Your task to perform on an android device: Go to location settings Image 0: 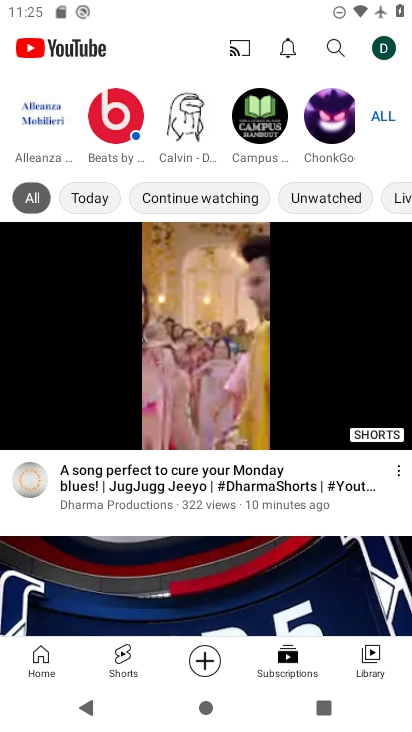
Step 0: press home button
Your task to perform on an android device: Go to location settings Image 1: 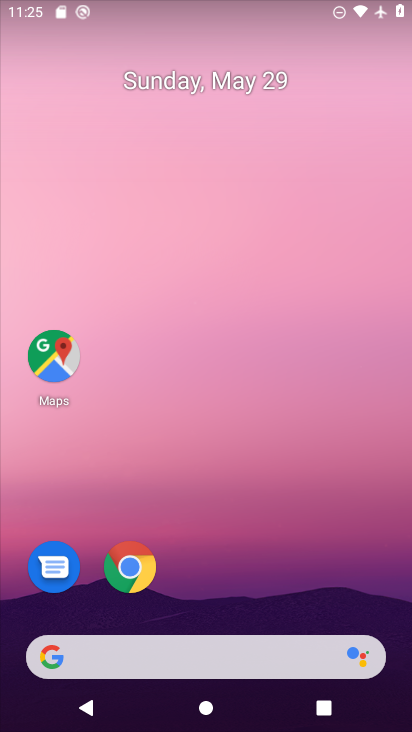
Step 1: drag from (391, 628) to (334, 144)
Your task to perform on an android device: Go to location settings Image 2: 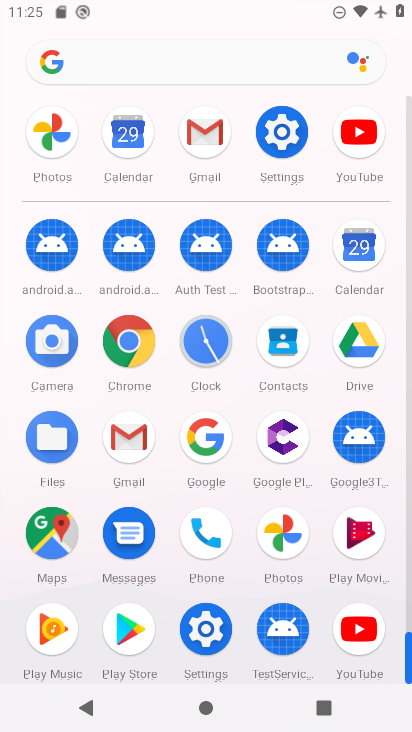
Step 2: click (206, 629)
Your task to perform on an android device: Go to location settings Image 3: 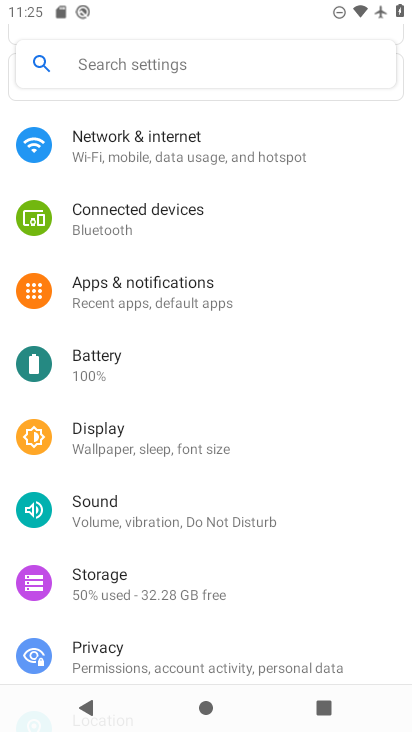
Step 3: drag from (294, 655) to (289, 148)
Your task to perform on an android device: Go to location settings Image 4: 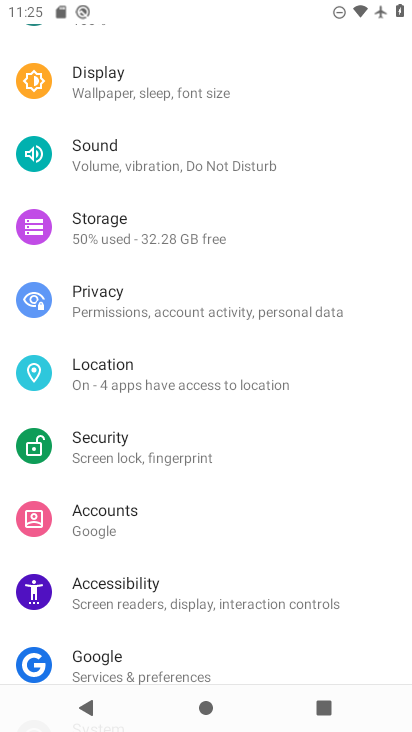
Step 4: click (119, 374)
Your task to perform on an android device: Go to location settings Image 5: 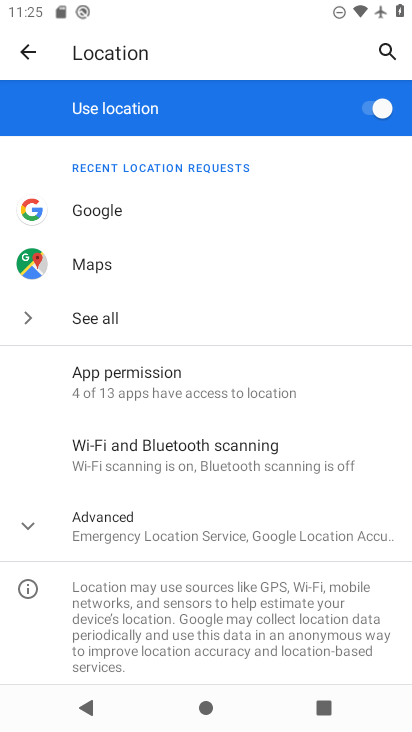
Step 5: click (28, 525)
Your task to perform on an android device: Go to location settings Image 6: 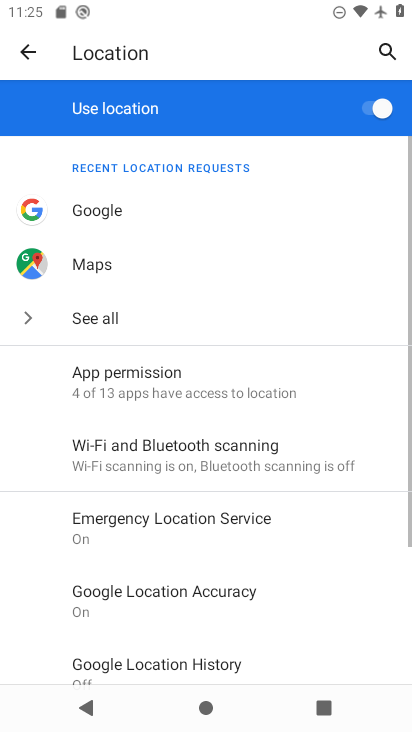
Step 6: task complete